Your task to perform on an android device: Open sound settings Image 0: 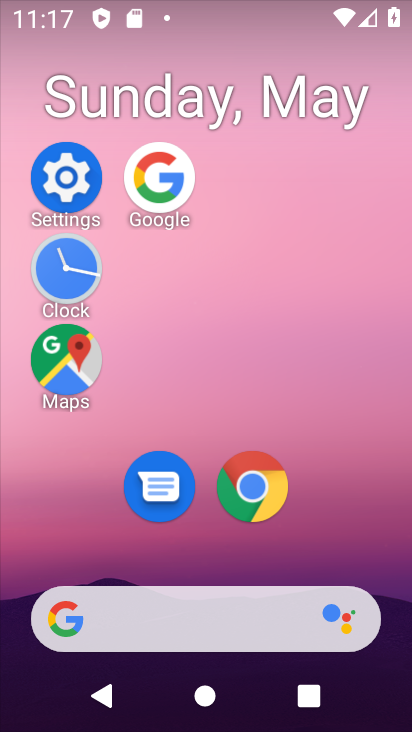
Step 0: click (53, 172)
Your task to perform on an android device: Open sound settings Image 1: 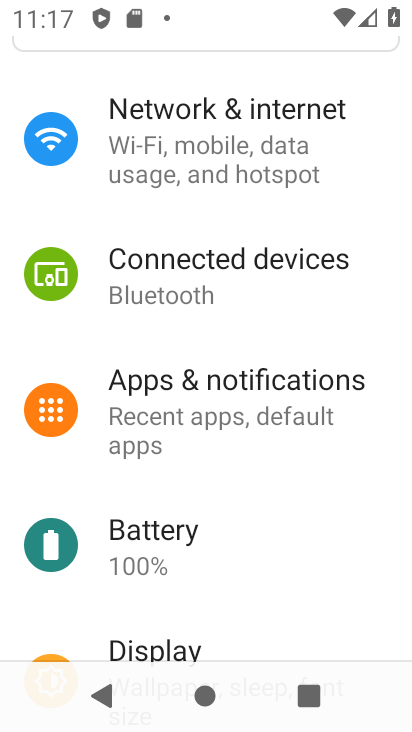
Step 1: drag from (298, 201) to (333, 476)
Your task to perform on an android device: Open sound settings Image 2: 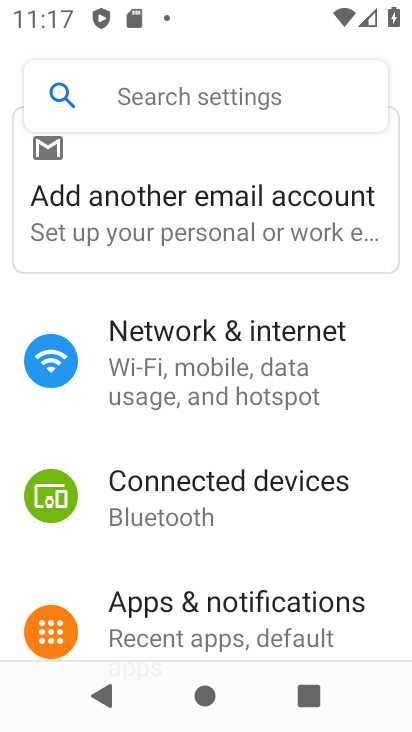
Step 2: drag from (332, 476) to (322, 103)
Your task to perform on an android device: Open sound settings Image 3: 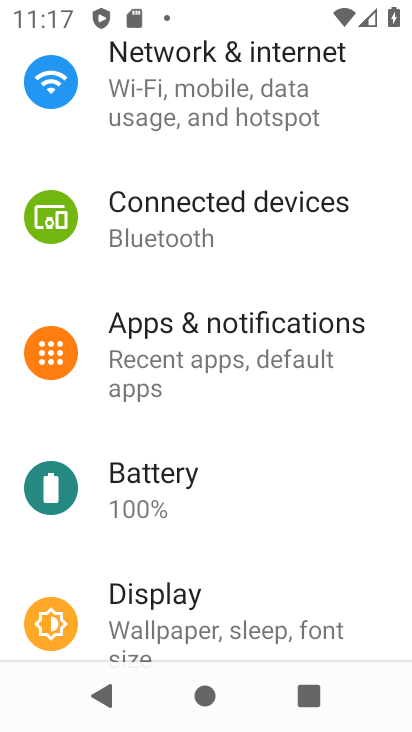
Step 3: drag from (278, 514) to (293, 99)
Your task to perform on an android device: Open sound settings Image 4: 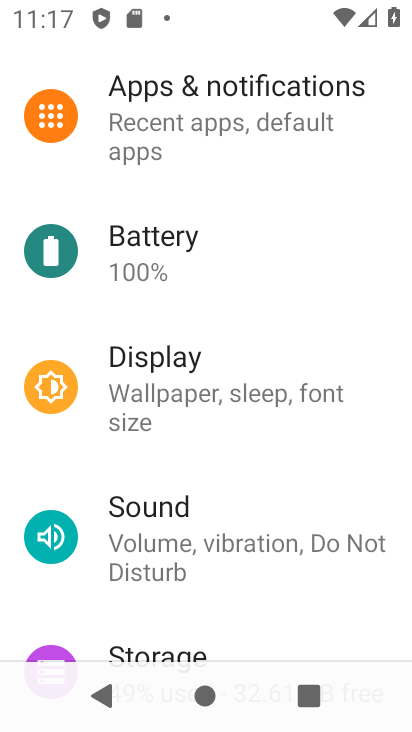
Step 4: click (192, 513)
Your task to perform on an android device: Open sound settings Image 5: 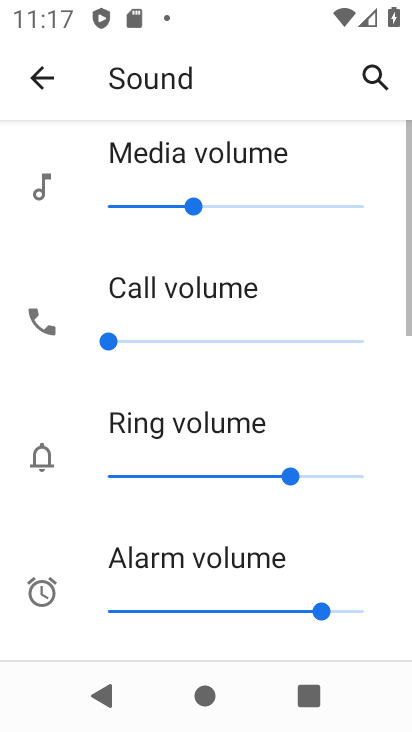
Step 5: task complete